Your task to perform on an android device: toggle show notifications on the lock screen Image 0: 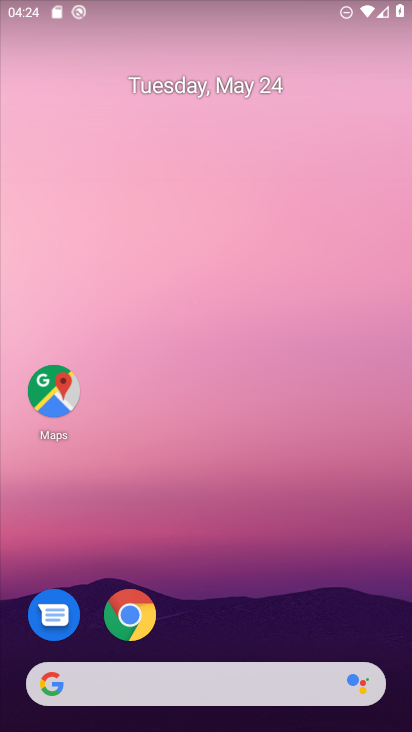
Step 0: drag from (268, 569) to (223, 25)
Your task to perform on an android device: toggle show notifications on the lock screen Image 1: 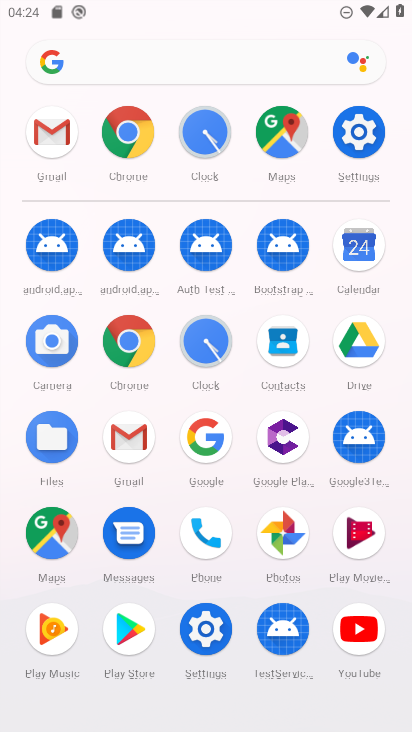
Step 1: drag from (8, 554) to (8, 236)
Your task to perform on an android device: toggle show notifications on the lock screen Image 2: 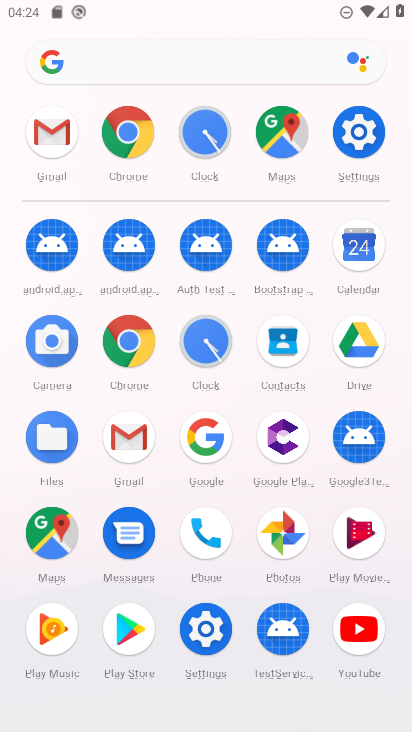
Step 2: drag from (4, 410) to (16, 242)
Your task to perform on an android device: toggle show notifications on the lock screen Image 3: 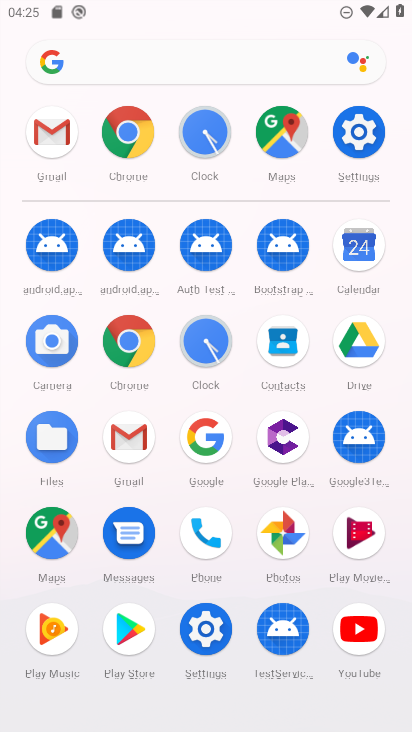
Step 3: click (206, 627)
Your task to perform on an android device: toggle show notifications on the lock screen Image 4: 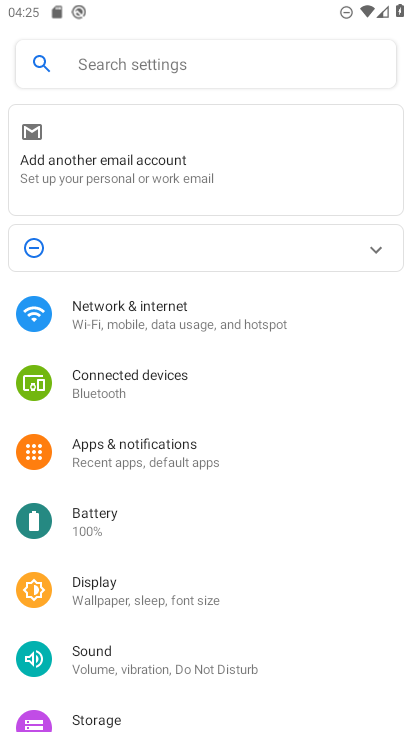
Step 4: drag from (268, 550) to (281, 269)
Your task to perform on an android device: toggle show notifications on the lock screen Image 5: 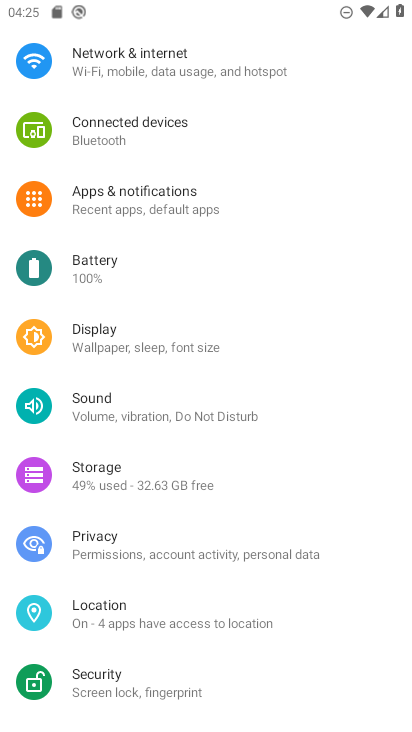
Step 5: click (146, 196)
Your task to perform on an android device: toggle show notifications on the lock screen Image 6: 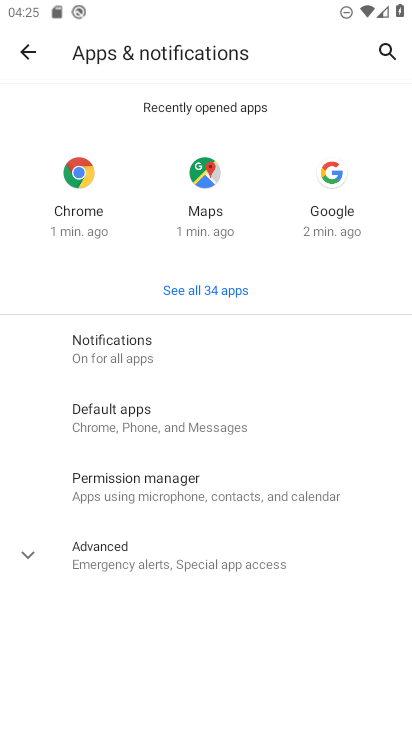
Step 6: click (51, 551)
Your task to perform on an android device: toggle show notifications on the lock screen Image 7: 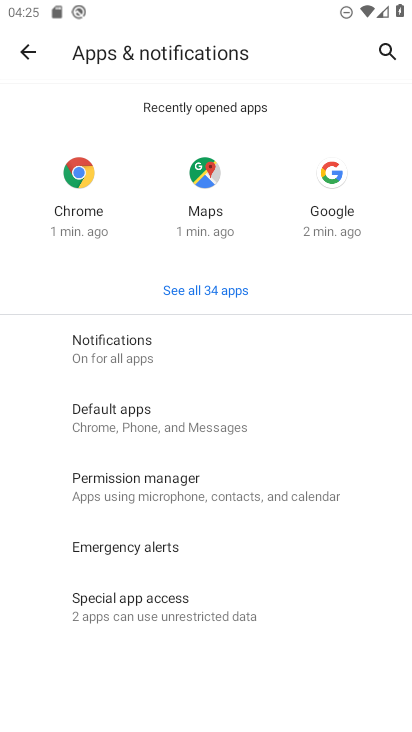
Step 7: click (154, 339)
Your task to perform on an android device: toggle show notifications on the lock screen Image 8: 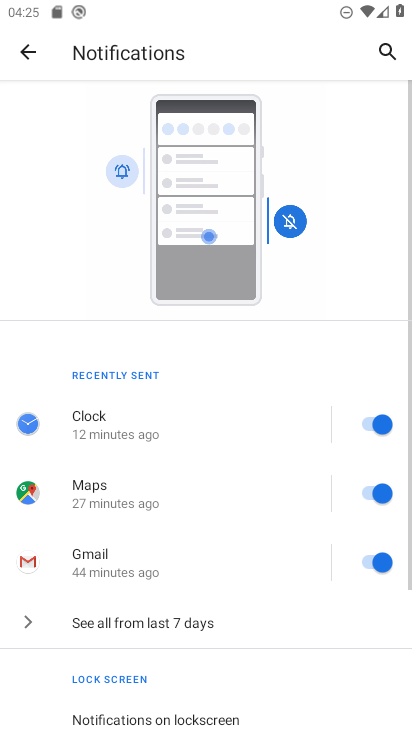
Step 8: drag from (201, 560) to (227, 145)
Your task to perform on an android device: toggle show notifications on the lock screen Image 9: 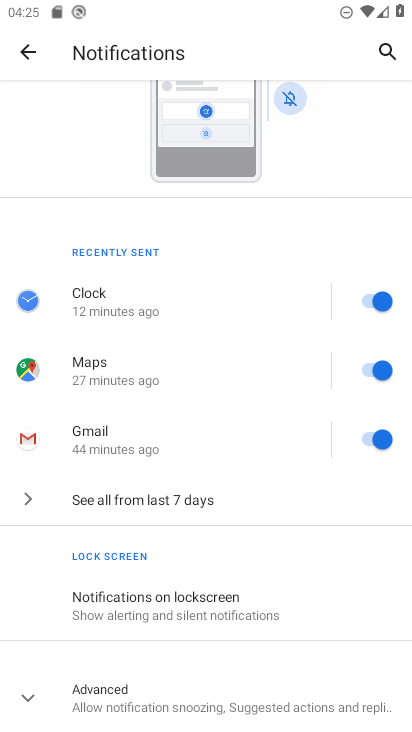
Step 9: click (36, 684)
Your task to perform on an android device: toggle show notifications on the lock screen Image 10: 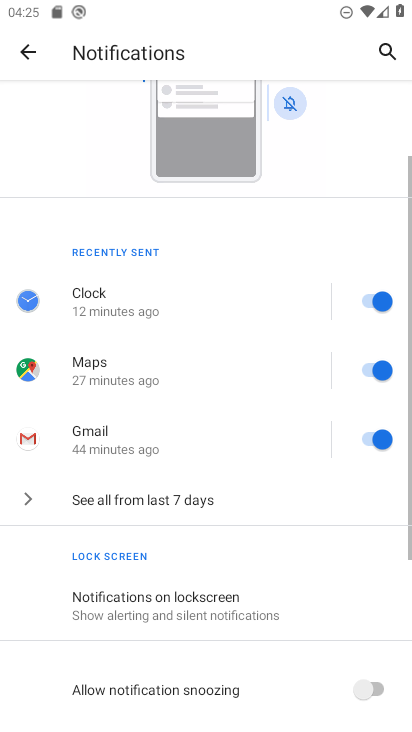
Step 10: drag from (185, 533) to (233, 149)
Your task to perform on an android device: toggle show notifications on the lock screen Image 11: 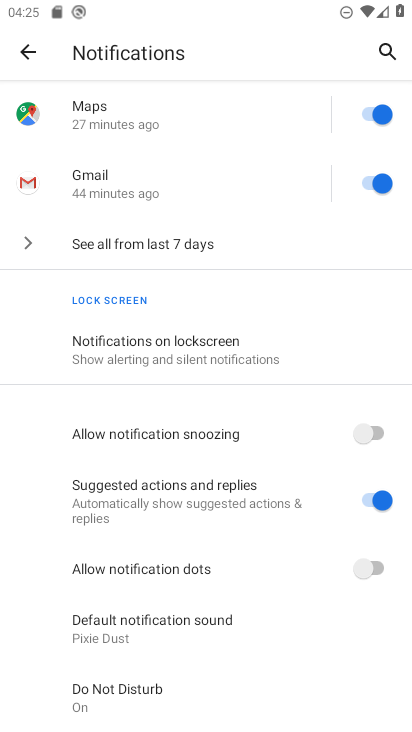
Step 11: click (182, 340)
Your task to perform on an android device: toggle show notifications on the lock screen Image 12: 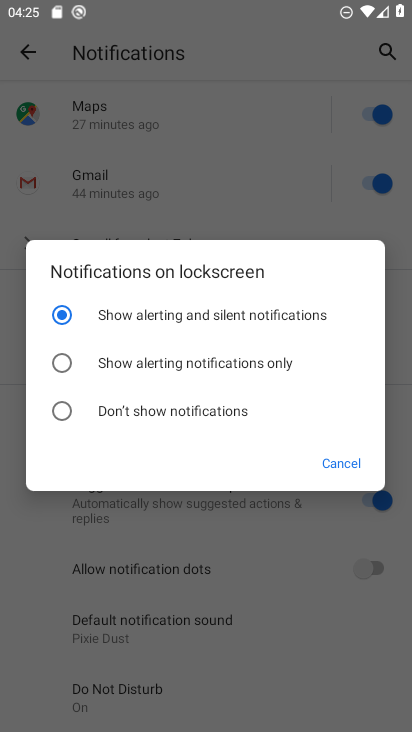
Step 12: click (177, 378)
Your task to perform on an android device: toggle show notifications on the lock screen Image 13: 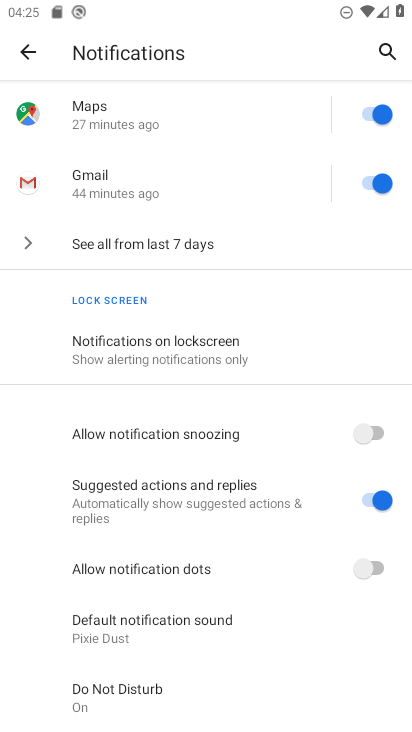
Step 13: task complete